Your task to perform on an android device: set an alarm Image 0: 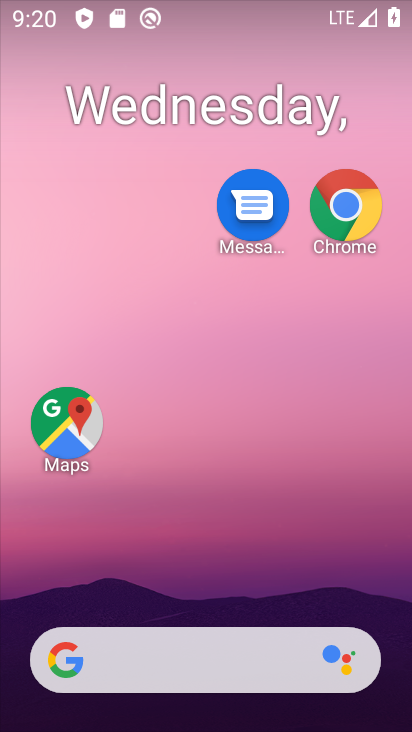
Step 0: click (214, 116)
Your task to perform on an android device: set an alarm Image 1: 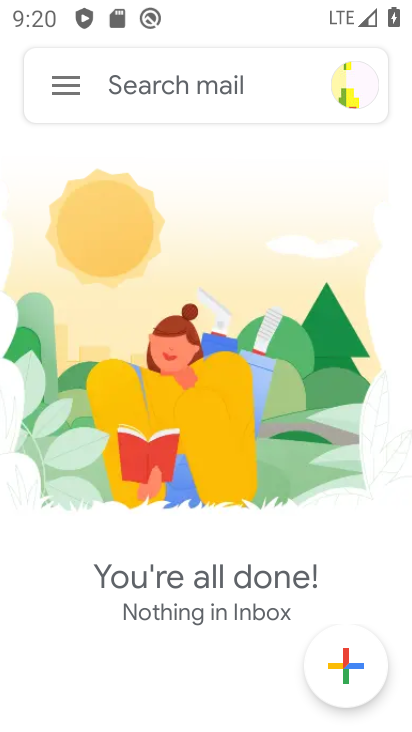
Step 1: drag from (140, 624) to (287, 120)
Your task to perform on an android device: set an alarm Image 2: 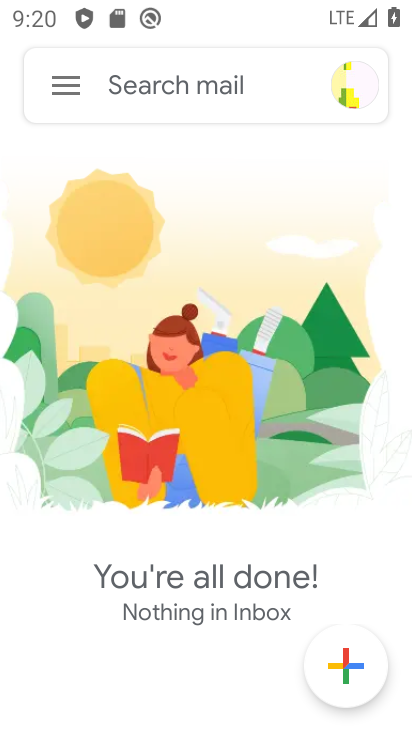
Step 2: click (59, 93)
Your task to perform on an android device: set an alarm Image 3: 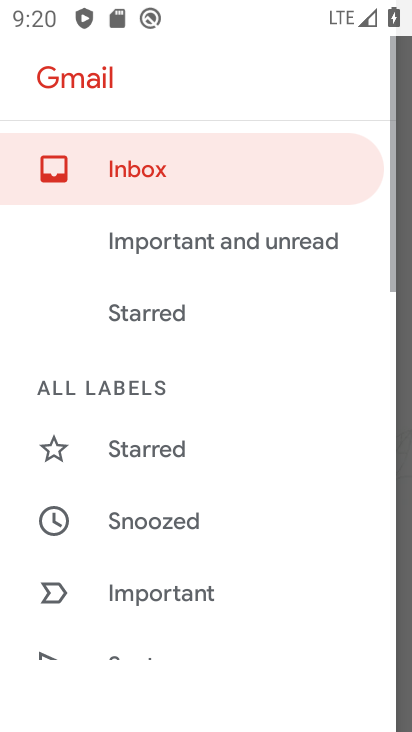
Step 3: drag from (228, 494) to (322, 49)
Your task to perform on an android device: set an alarm Image 4: 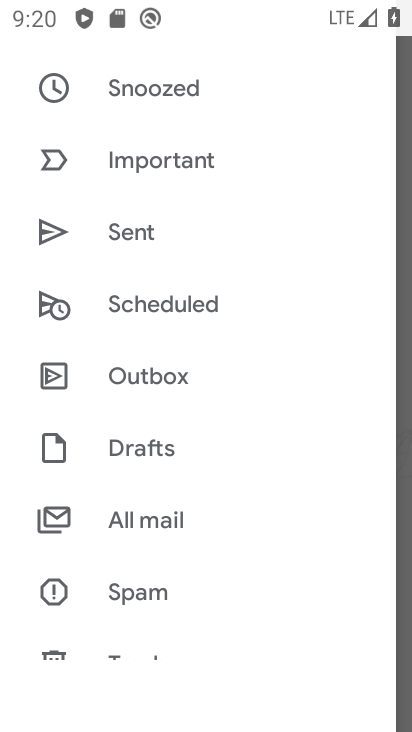
Step 4: drag from (181, 603) to (314, 114)
Your task to perform on an android device: set an alarm Image 5: 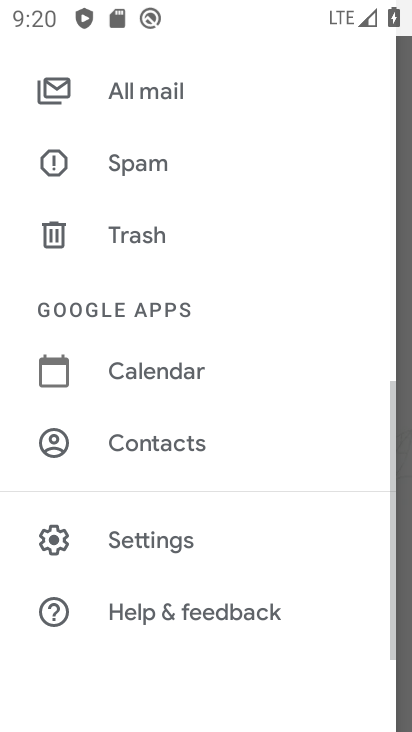
Step 5: click (161, 519)
Your task to perform on an android device: set an alarm Image 6: 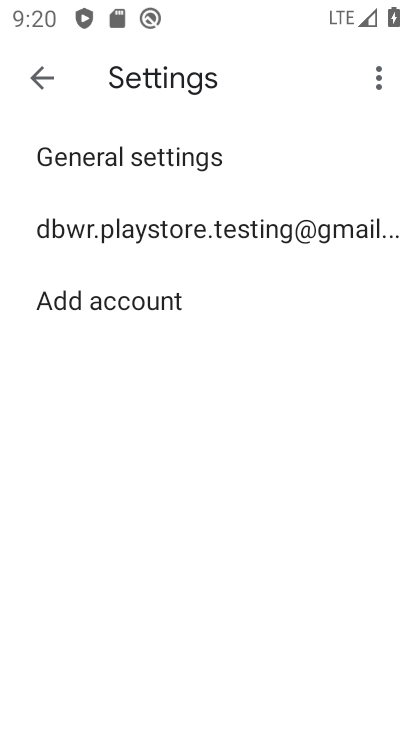
Step 6: press home button
Your task to perform on an android device: set an alarm Image 7: 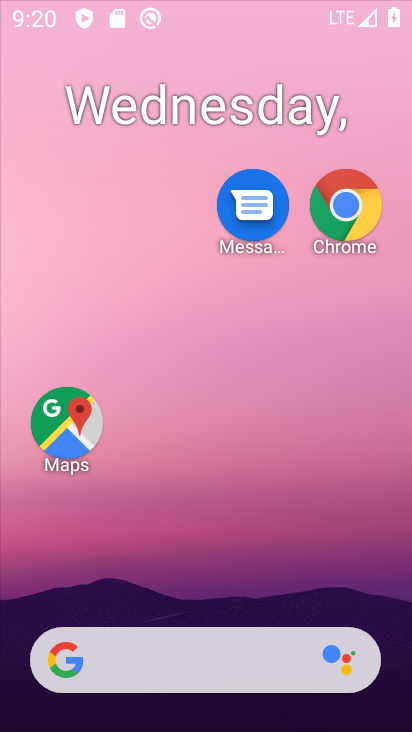
Step 7: drag from (173, 594) to (350, 146)
Your task to perform on an android device: set an alarm Image 8: 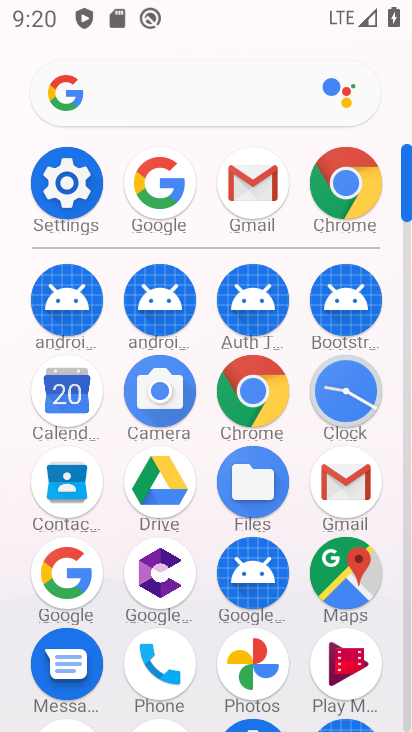
Step 8: click (362, 405)
Your task to perform on an android device: set an alarm Image 9: 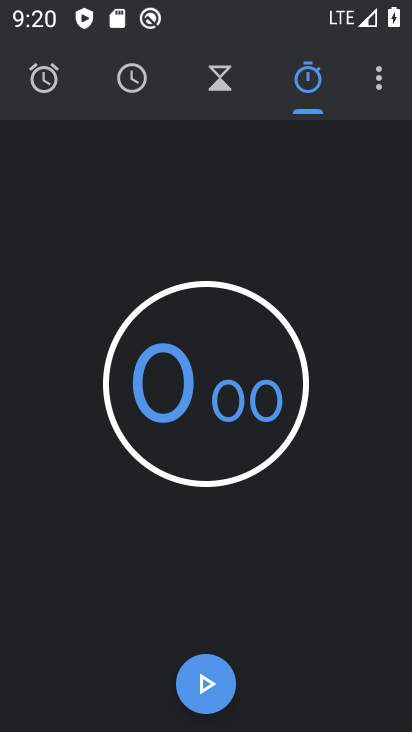
Step 9: click (387, 99)
Your task to perform on an android device: set an alarm Image 10: 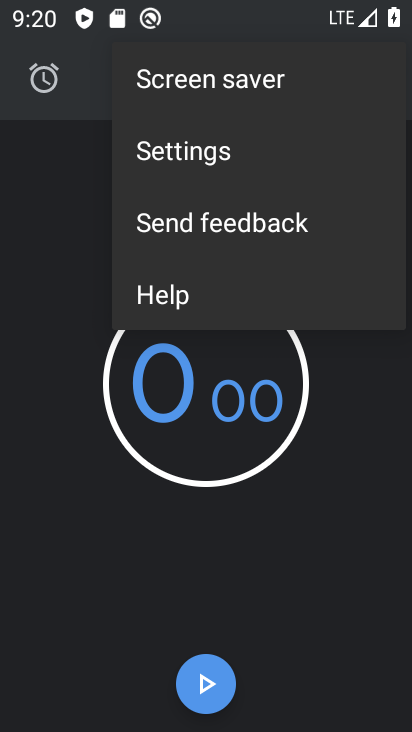
Step 10: click (209, 155)
Your task to perform on an android device: set an alarm Image 11: 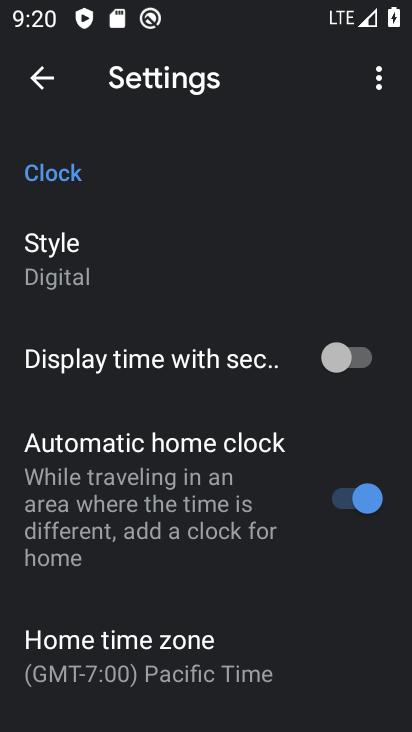
Step 11: click (46, 70)
Your task to perform on an android device: set an alarm Image 12: 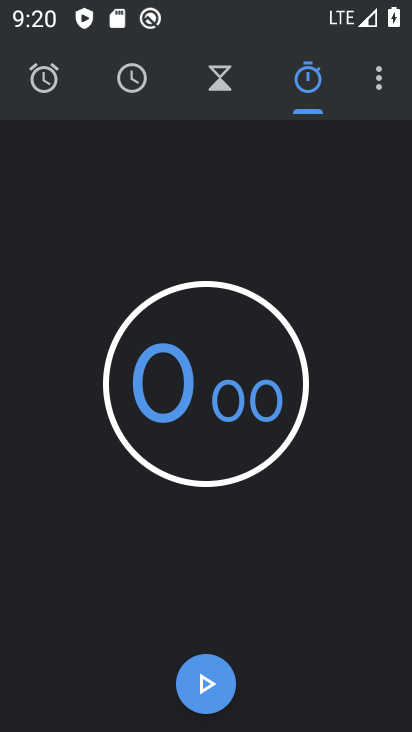
Step 12: click (46, 70)
Your task to perform on an android device: set an alarm Image 13: 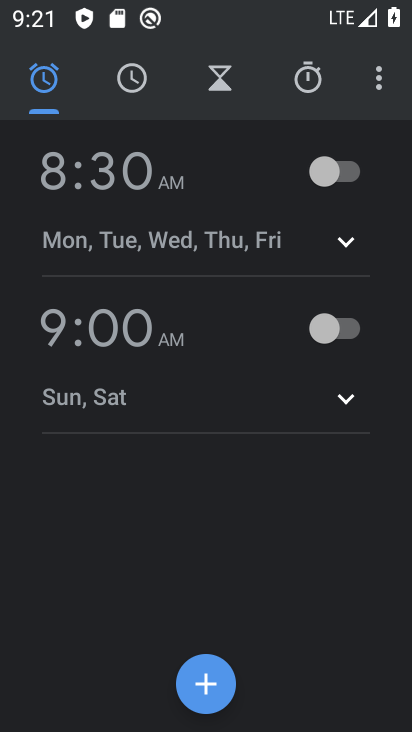
Step 13: click (338, 165)
Your task to perform on an android device: set an alarm Image 14: 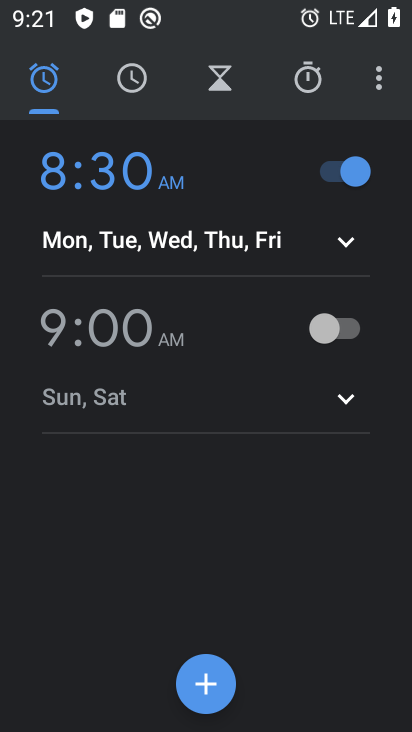
Step 14: task complete